Your task to perform on an android device: toggle notifications settings in the gmail app Image 0: 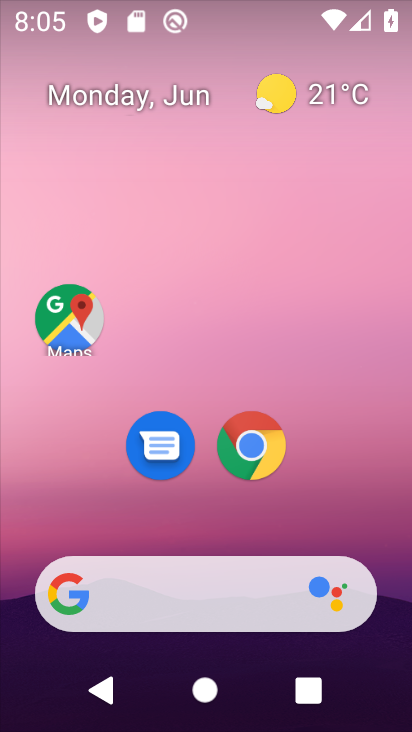
Step 0: drag from (205, 534) to (142, 94)
Your task to perform on an android device: toggle notifications settings in the gmail app Image 1: 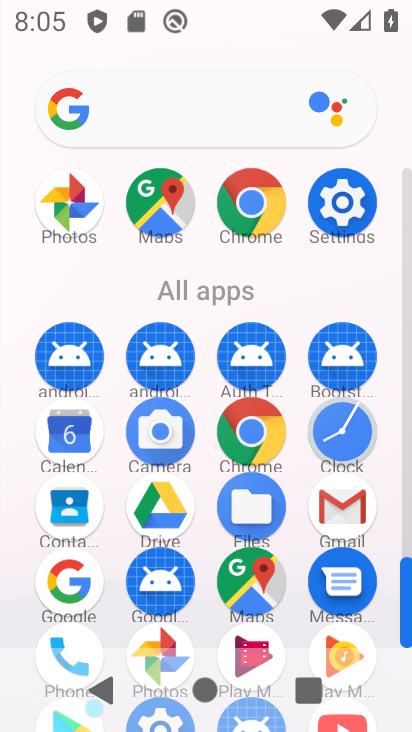
Step 1: click (329, 516)
Your task to perform on an android device: toggle notifications settings in the gmail app Image 2: 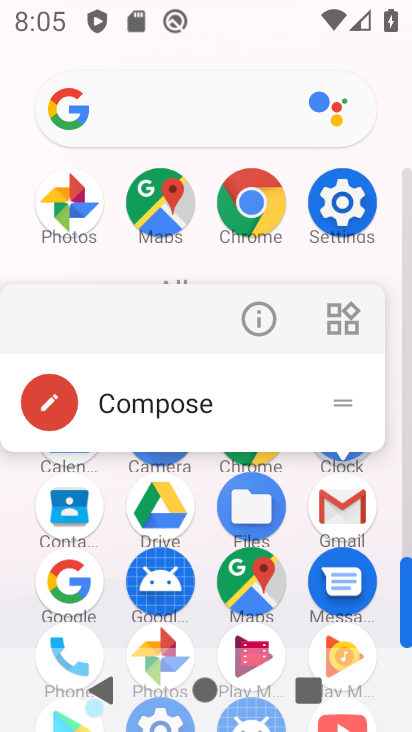
Step 2: click (329, 516)
Your task to perform on an android device: toggle notifications settings in the gmail app Image 3: 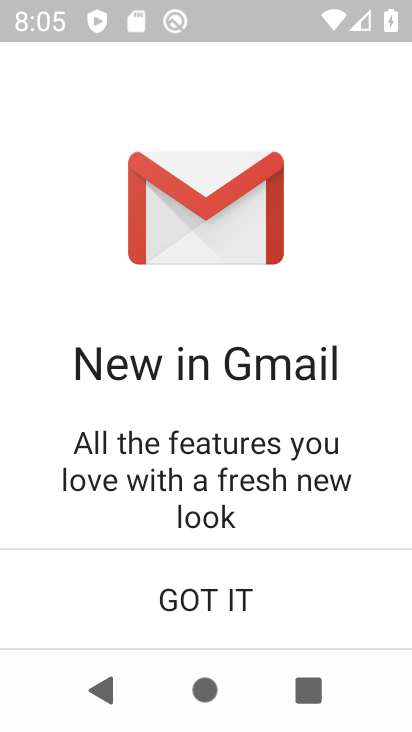
Step 3: click (294, 608)
Your task to perform on an android device: toggle notifications settings in the gmail app Image 4: 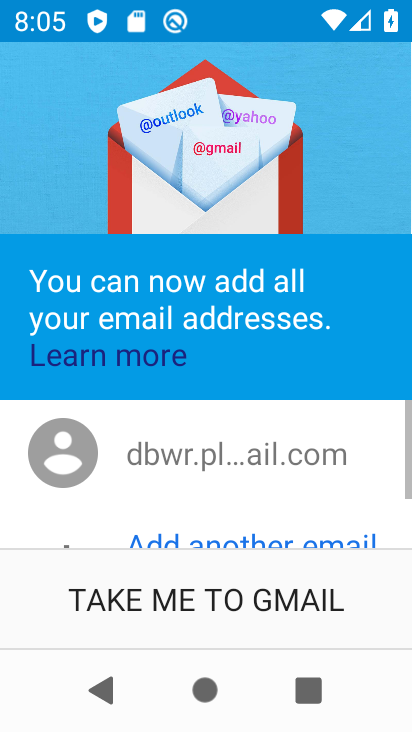
Step 4: click (294, 608)
Your task to perform on an android device: toggle notifications settings in the gmail app Image 5: 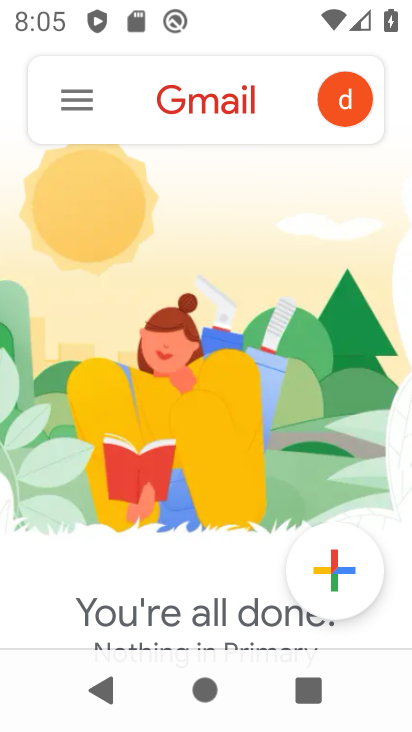
Step 5: click (80, 106)
Your task to perform on an android device: toggle notifications settings in the gmail app Image 6: 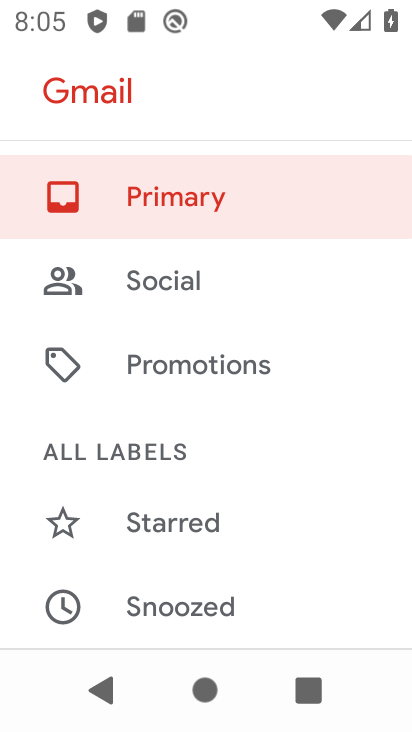
Step 6: drag from (196, 545) to (173, 185)
Your task to perform on an android device: toggle notifications settings in the gmail app Image 7: 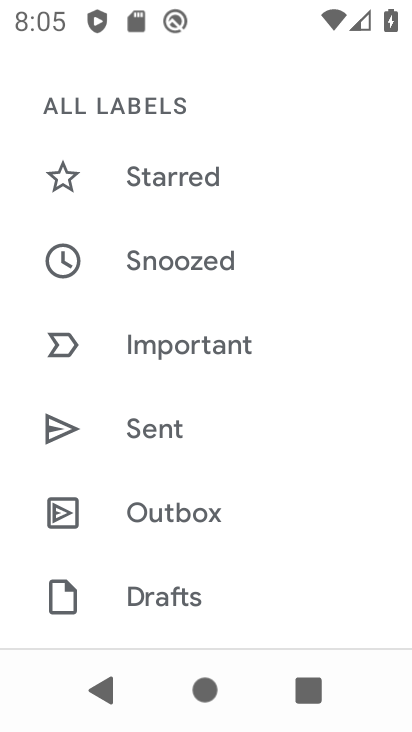
Step 7: drag from (253, 562) to (221, 311)
Your task to perform on an android device: toggle notifications settings in the gmail app Image 8: 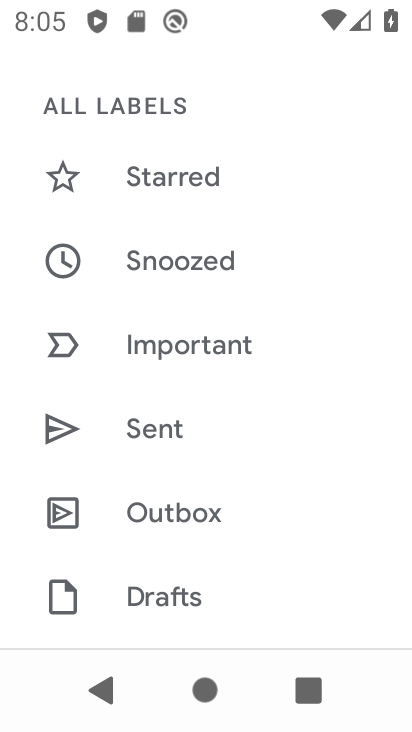
Step 8: drag from (209, 562) to (238, 271)
Your task to perform on an android device: toggle notifications settings in the gmail app Image 9: 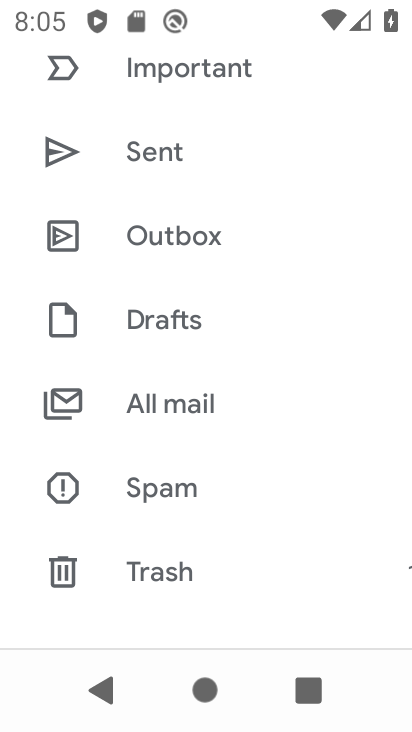
Step 9: drag from (164, 605) to (155, 175)
Your task to perform on an android device: toggle notifications settings in the gmail app Image 10: 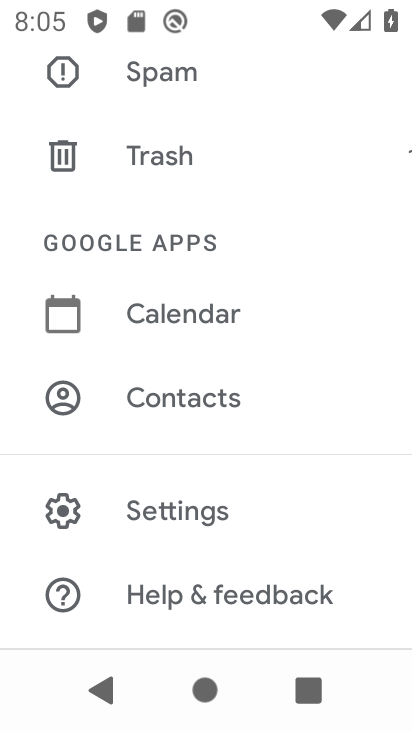
Step 10: click (155, 501)
Your task to perform on an android device: toggle notifications settings in the gmail app Image 11: 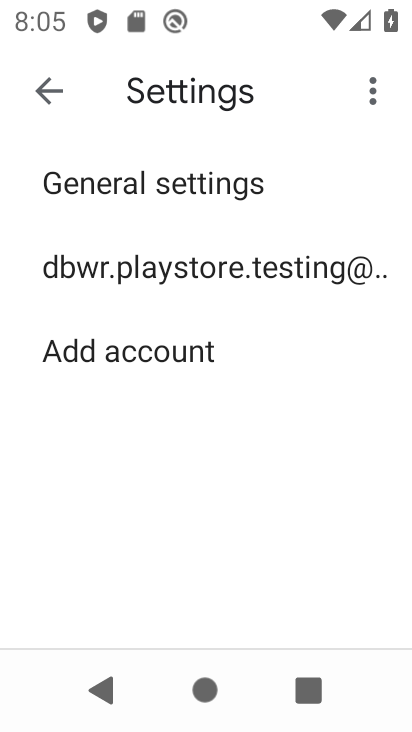
Step 11: click (351, 279)
Your task to perform on an android device: toggle notifications settings in the gmail app Image 12: 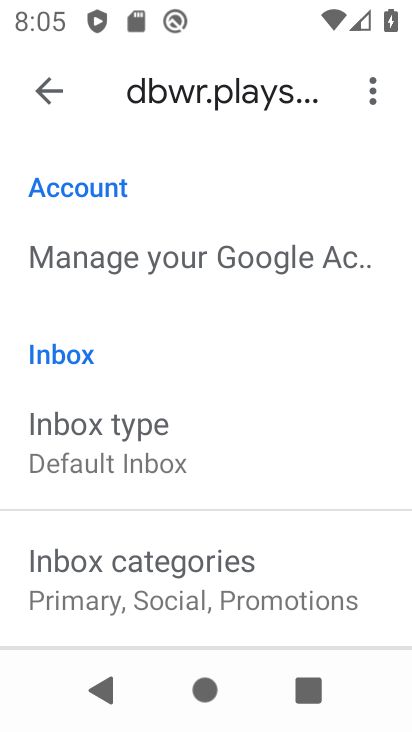
Step 12: drag from (143, 562) to (137, 204)
Your task to perform on an android device: toggle notifications settings in the gmail app Image 13: 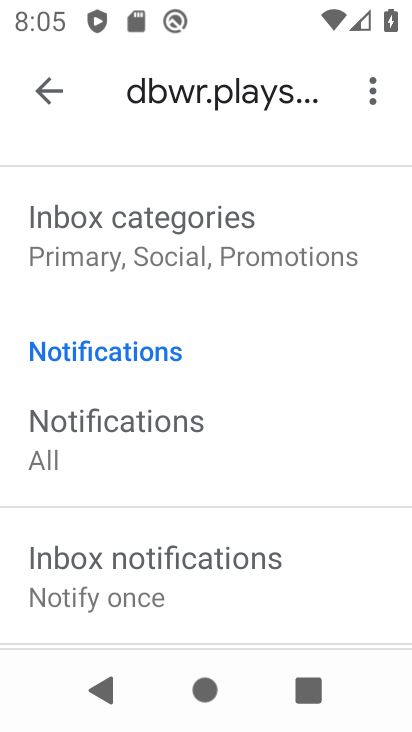
Step 13: drag from (246, 601) to (212, 199)
Your task to perform on an android device: toggle notifications settings in the gmail app Image 14: 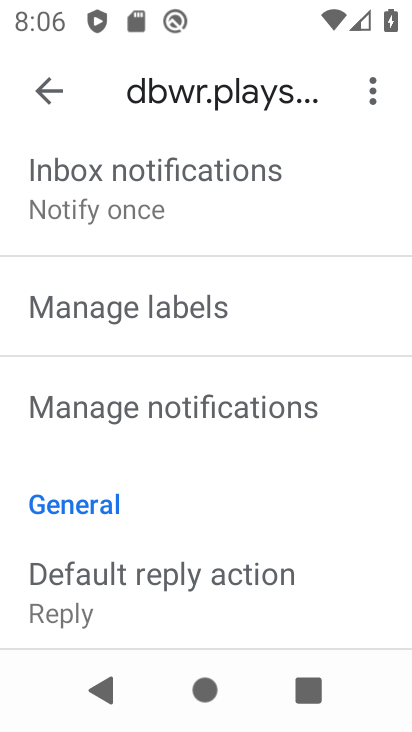
Step 14: drag from (212, 609) to (201, 171)
Your task to perform on an android device: toggle notifications settings in the gmail app Image 15: 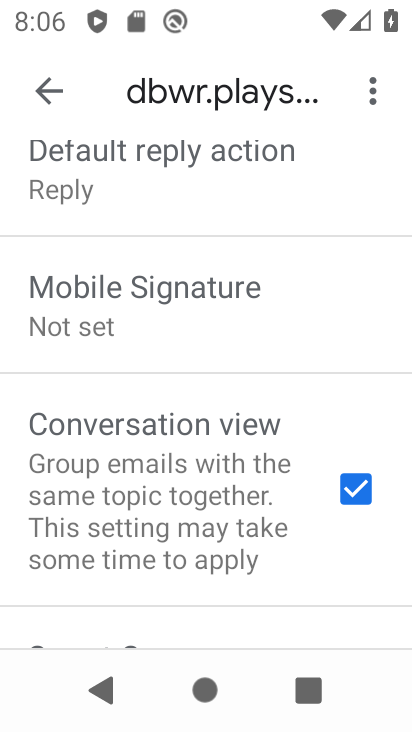
Step 15: drag from (157, 439) to (231, 723)
Your task to perform on an android device: toggle notifications settings in the gmail app Image 16: 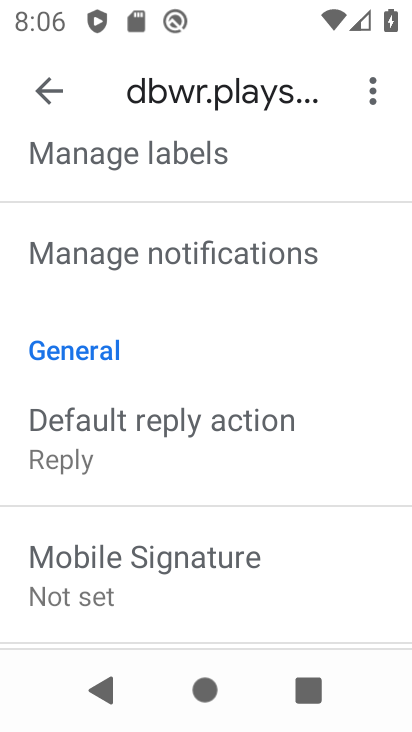
Step 16: click (190, 276)
Your task to perform on an android device: toggle notifications settings in the gmail app Image 17: 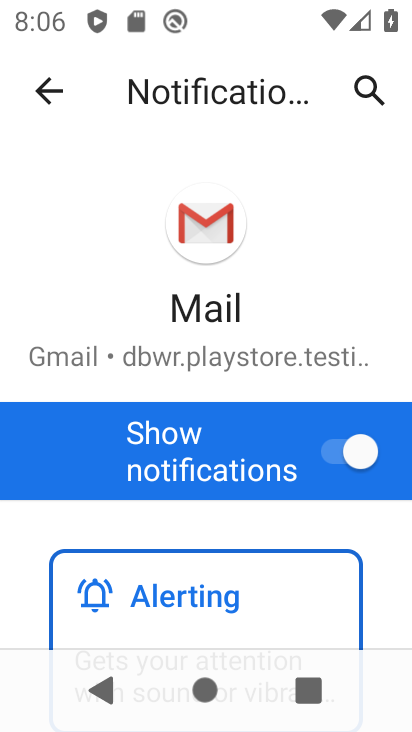
Step 17: click (382, 460)
Your task to perform on an android device: toggle notifications settings in the gmail app Image 18: 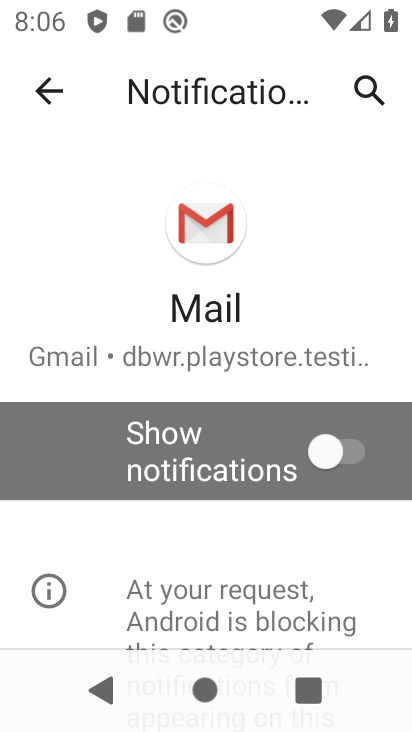
Step 18: task complete